Your task to perform on an android device: What's on my calendar today? Image 0: 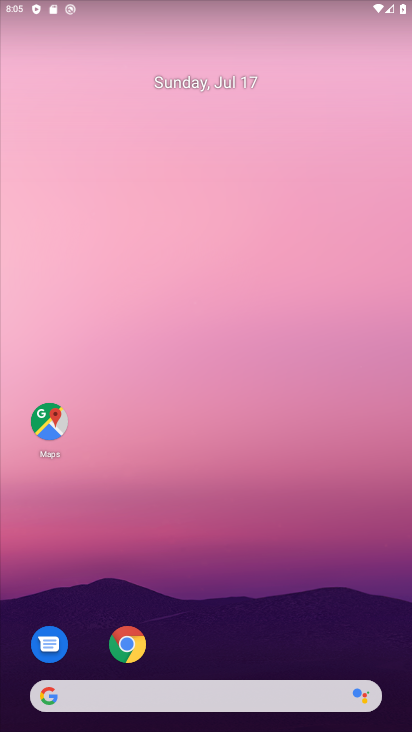
Step 0: drag from (241, 428) to (229, 143)
Your task to perform on an android device: What's on my calendar today? Image 1: 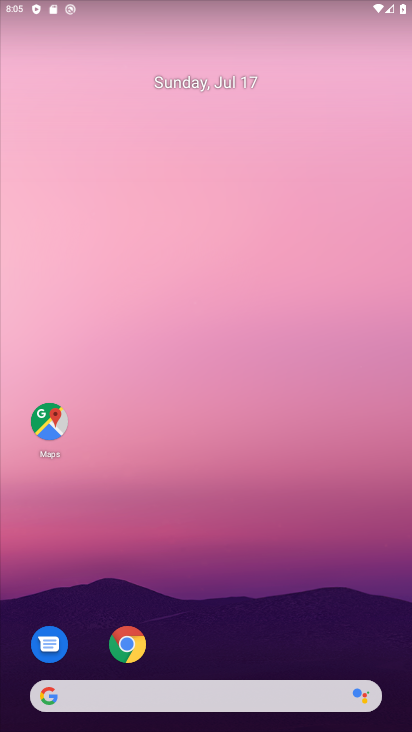
Step 1: drag from (216, 552) to (150, 61)
Your task to perform on an android device: What's on my calendar today? Image 2: 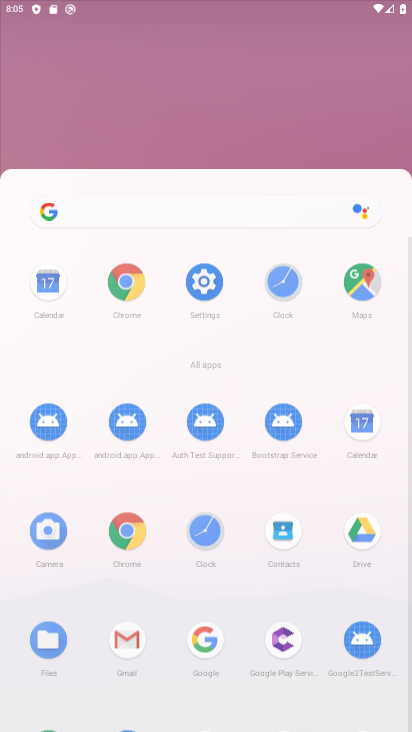
Step 2: drag from (190, 527) to (163, 106)
Your task to perform on an android device: What's on my calendar today? Image 3: 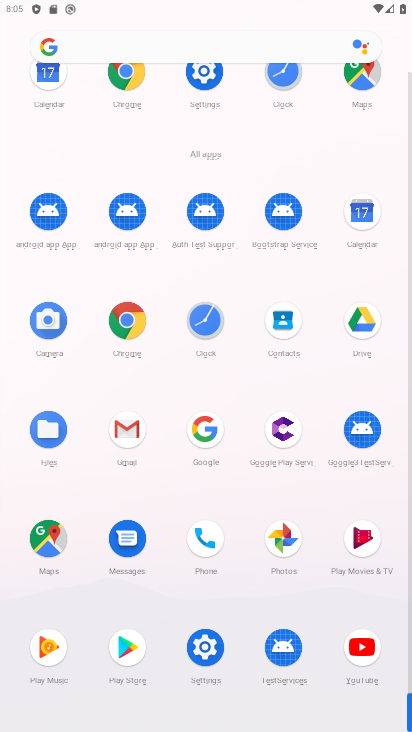
Step 3: drag from (196, 636) to (143, 165)
Your task to perform on an android device: What's on my calendar today? Image 4: 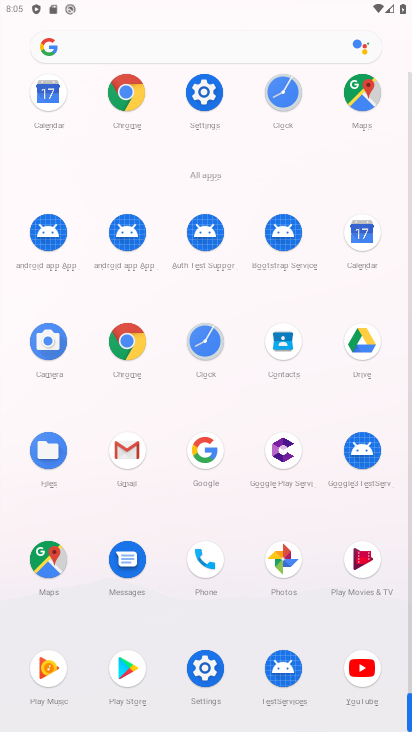
Step 4: click (360, 208)
Your task to perform on an android device: What's on my calendar today? Image 5: 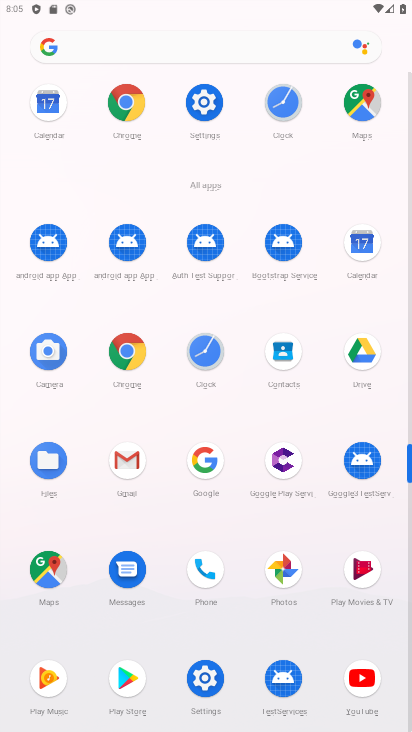
Step 5: click (364, 241)
Your task to perform on an android device: What's on my calendar today? Image 6: 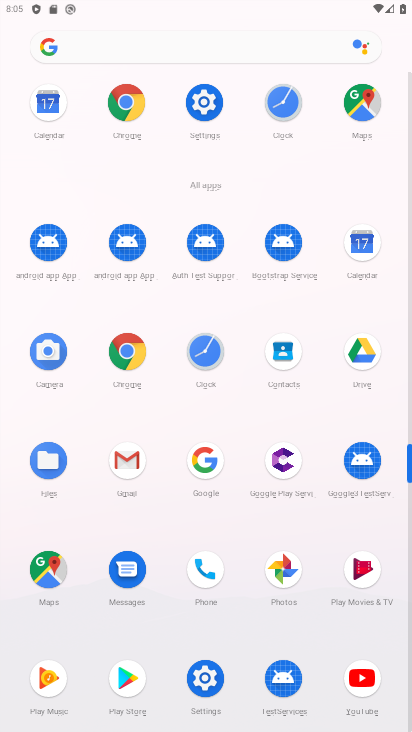
Step 6: click (364, 248)
Your task to perform on an android device: What's on my calendar today? Image 7: 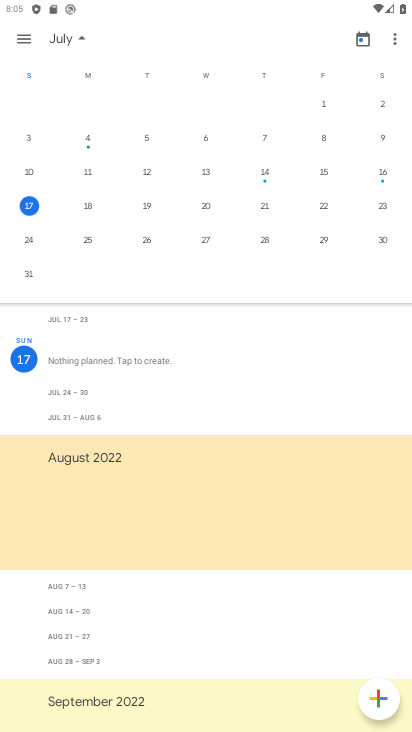
Step 7: click (86, 207)
Your task to perform on an android device: What's on my calendar today? Image 8: 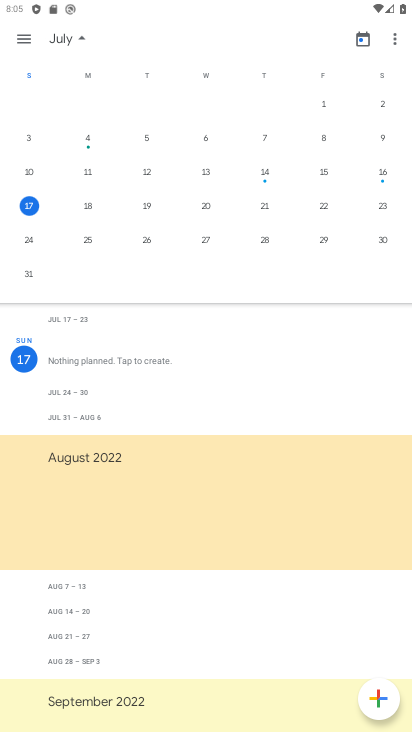
Step 8: click (94, 201)
Your task to perform on an android device: What's on my calendar today? Image 9: 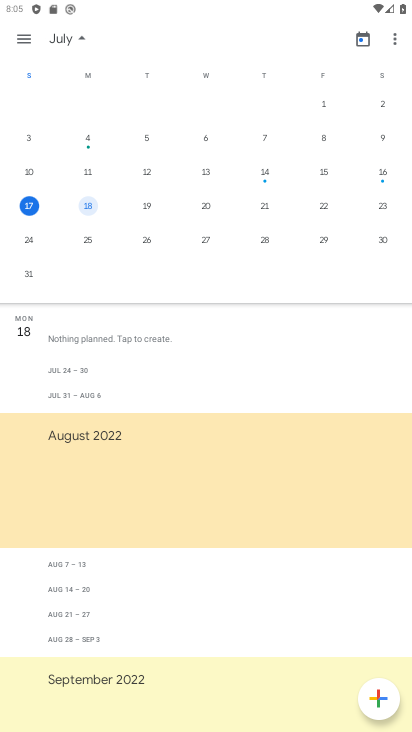
Step 9: click (91, 206)
Your task to perform on an android device: What's on my calendar today? Image 10: 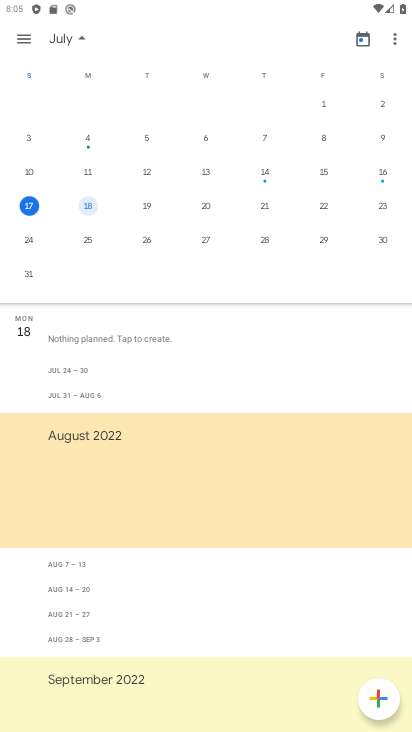
Step 10: click (93, 207)
Your task to perform on an android device: What's on my calendar today? Image 11: 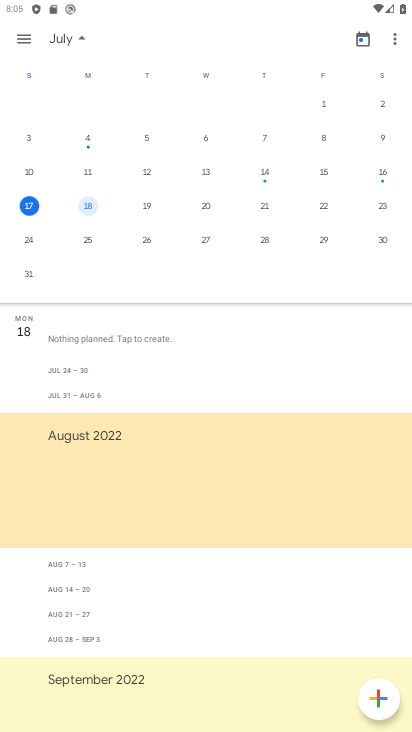
Step 11: task complete